Your task to perform on an android device: turn off location Image 0: 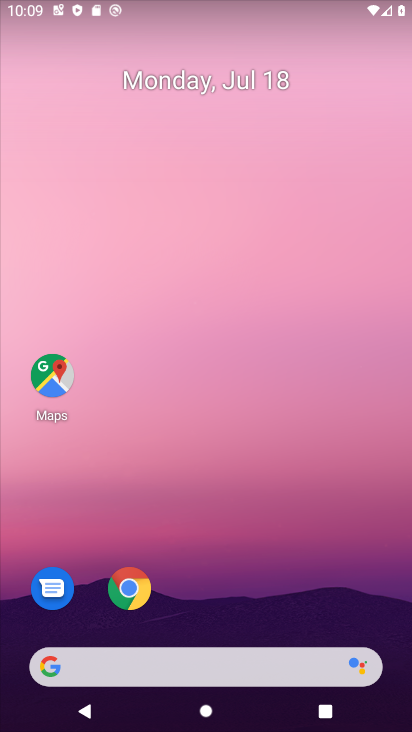
Step 0: drag from (237, 727) to (235, 144)
Your task to perform on an android device: turn off location Image 1: 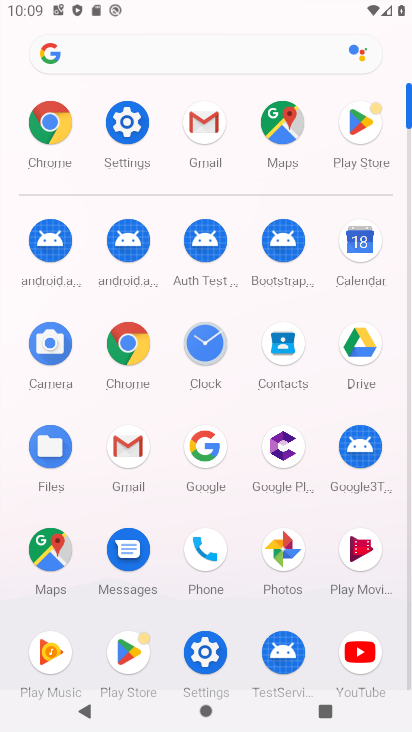
Step 1: click (129, 121)
Your task to perform on an android device: turn off location Image 2: 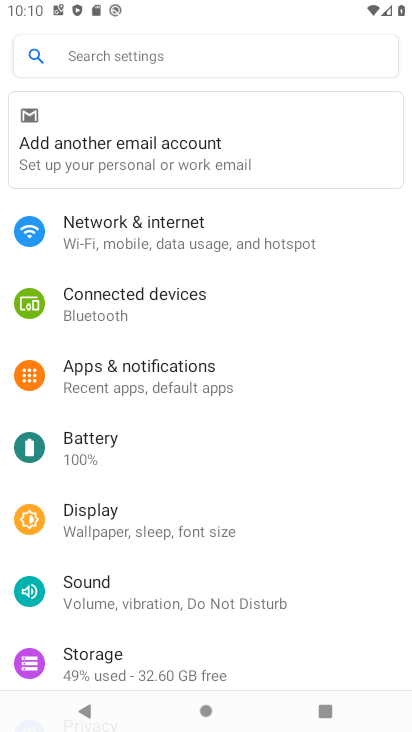
Step 2: drag from (141, 661) to (141, 328)
Your task to perform on an android device: turn off location Image 3: 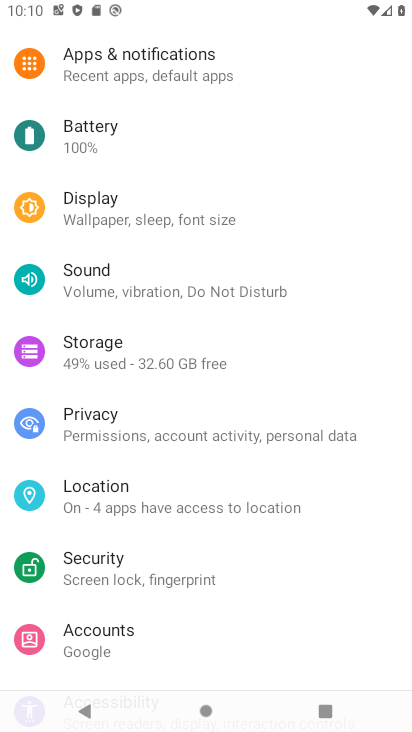
Step 3: click (102, 500)
Your task to perform on an android device: turn off location Image 4: 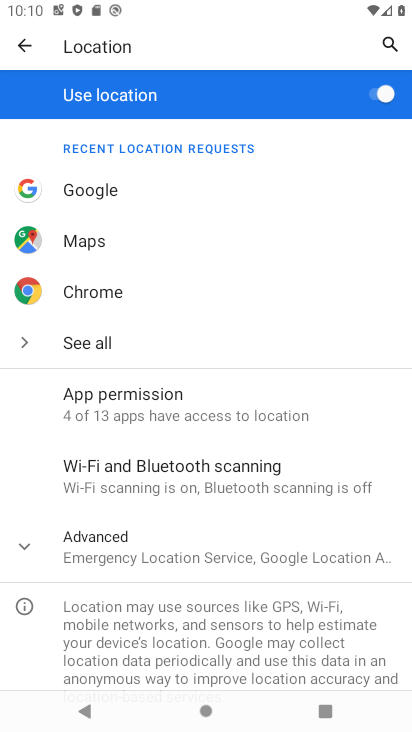
Step 4: click (378, 96)
Your task to perform on an android device: turn off location Image 5: 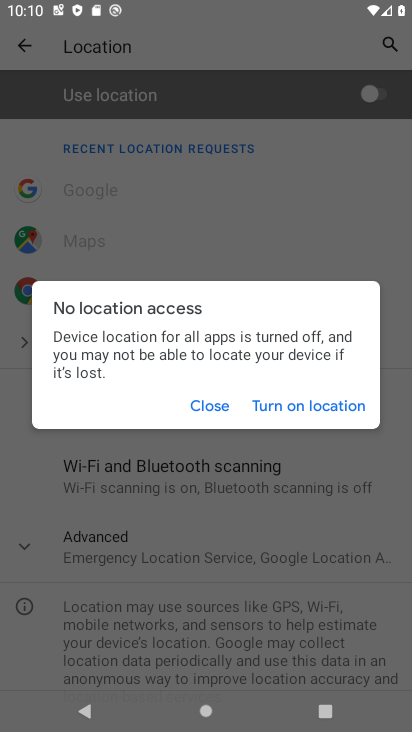
Step 5: click (206, 409)
Your task to perform on an android device: turn off location Image 6: 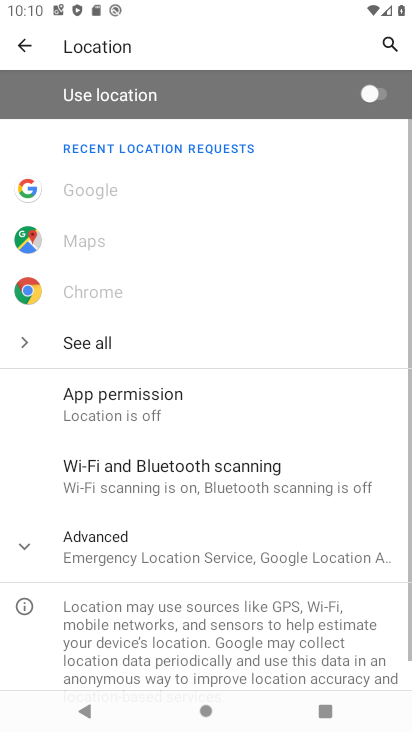
Step 6: task complete